Your task to perform on an android device: find which apps use the phone's location Image 0: 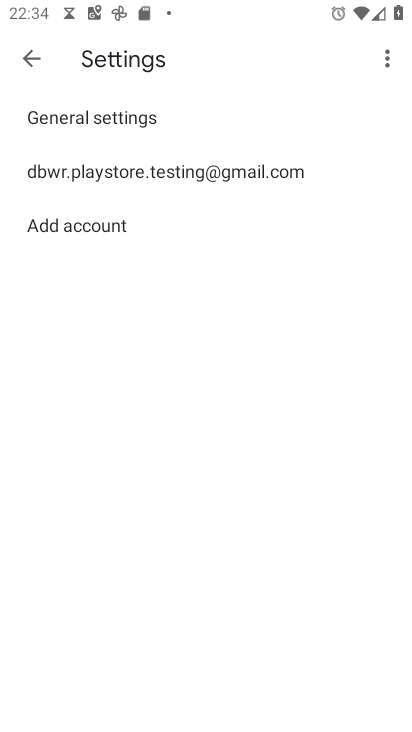
Step 0: press home button
Your task to perform on an android device: find which apps use the phone's location Image 1: 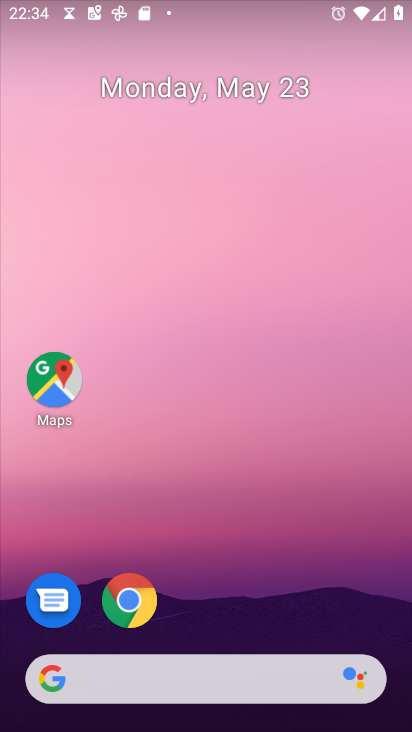
Step 1: drag from (208, 730) to (208, 121)
Your task to perform on an android device: find which apps use the phone's location Image 2: 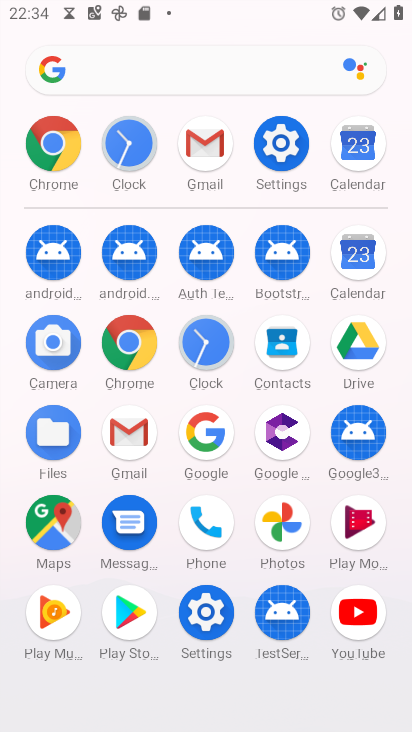
Step 2: click (284, 145)
Your task to perform on an android device: find which apps use the phone's location Image 3: 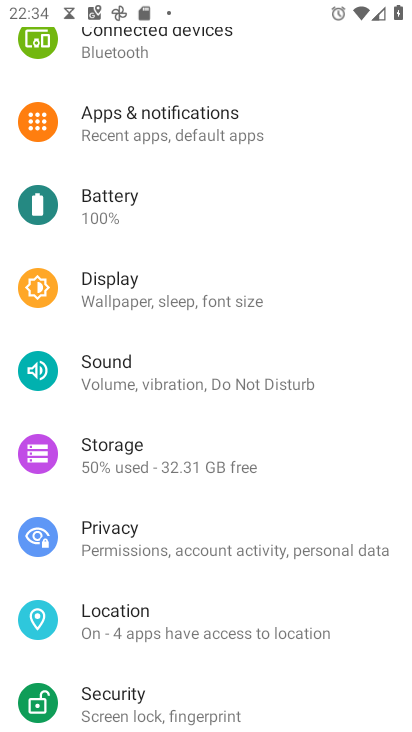
Step 3: click (102, 604)
Your task to perform on an android device: find which apps use the phone's location Image 4: 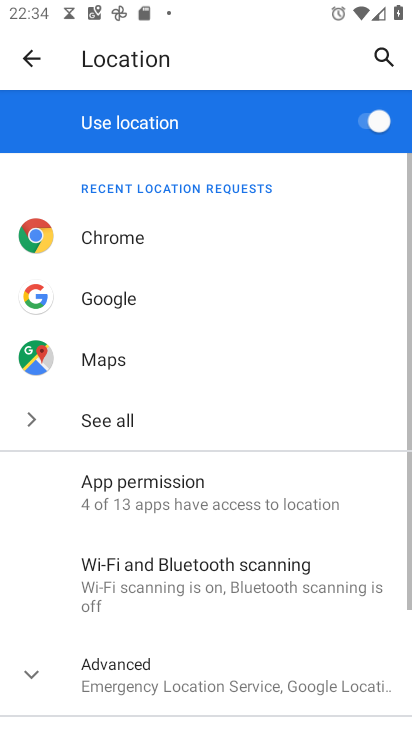
Step 4: click (158, 486)
Your task to perform on an android device: find which apps use the phone's location Image 5: 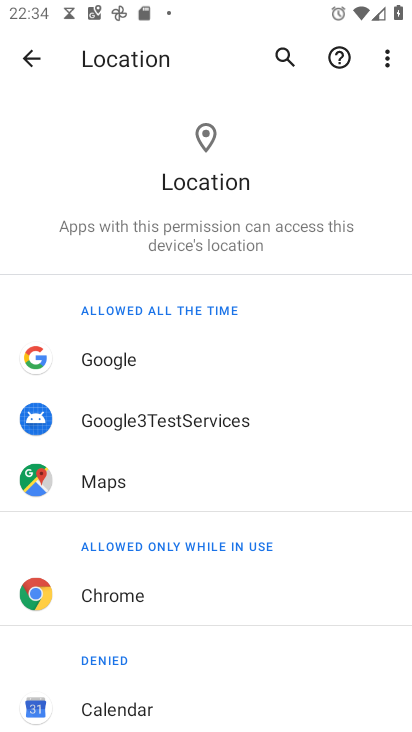
Step 5: task complete